Your task to perform on an android device: Go to settings Image 0: 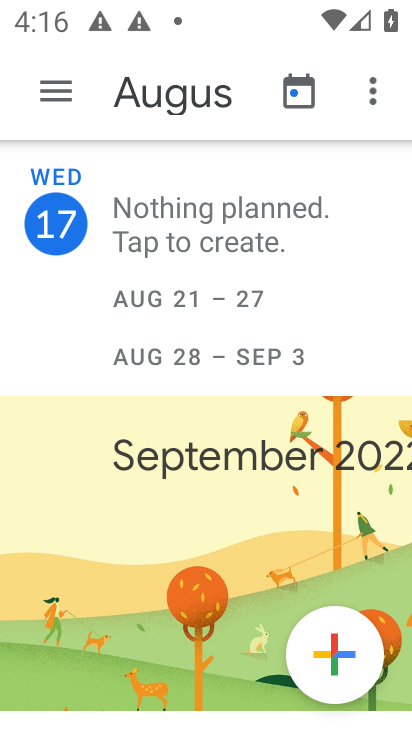
Step 0: press home button
Your task to perform on an android device: Go to settings Image 1: 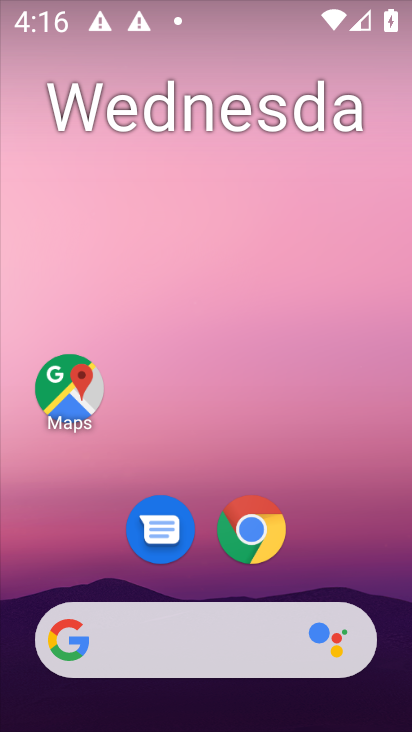
Step 1: drag from (182, 601) to (144, 4)
Your task to perform on an android device: Go to settings Image 2: 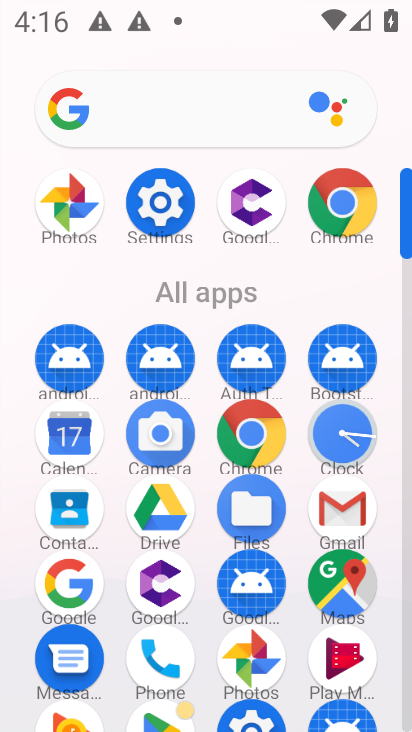
Step 2: drag from (205, 636) to (211, 166)
Your task to perform on an android device: Go to settings Image 3: 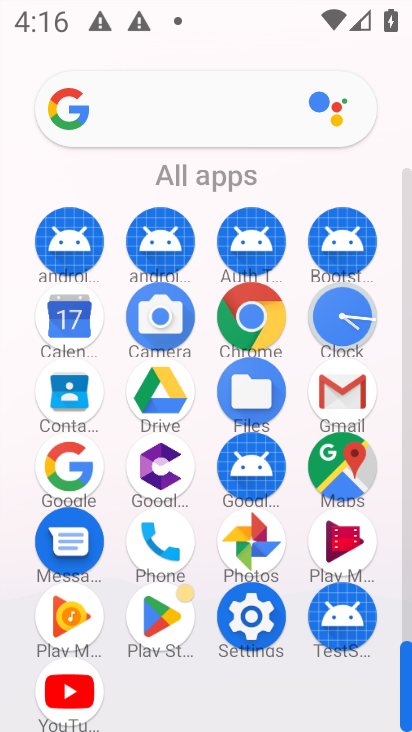
Step 3: click (252, 625)
Your task to perform on an android device: Go to settings Image 4: 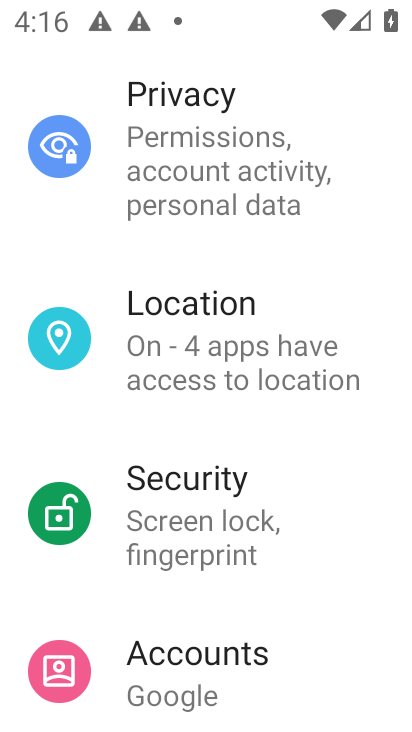
Step 4: task complete